Your task to perform on an android device: Open display settings Image 0: 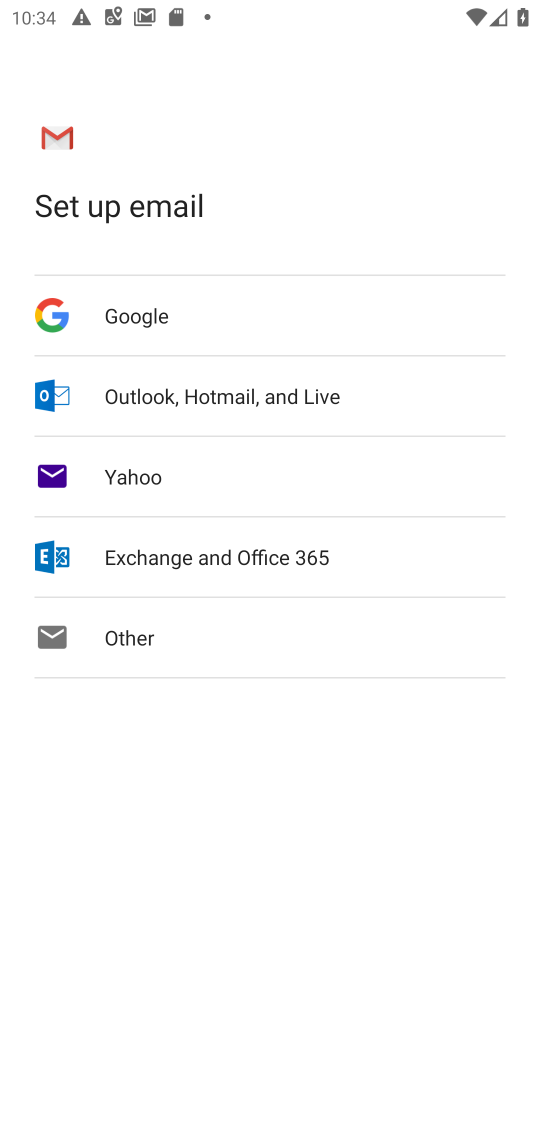
Step 0: press home button
Your task to perform on an android device: Open display settings Image 1: 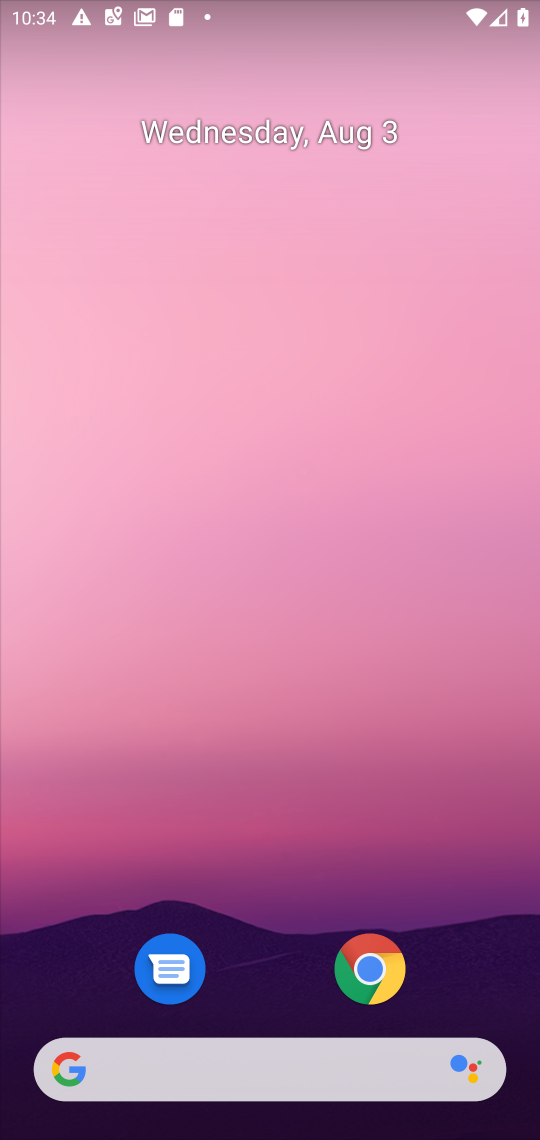
Step 1: drag from (285, 1015) to (315, 23)
Your task to perform on an android device: Open display settings Image 2: 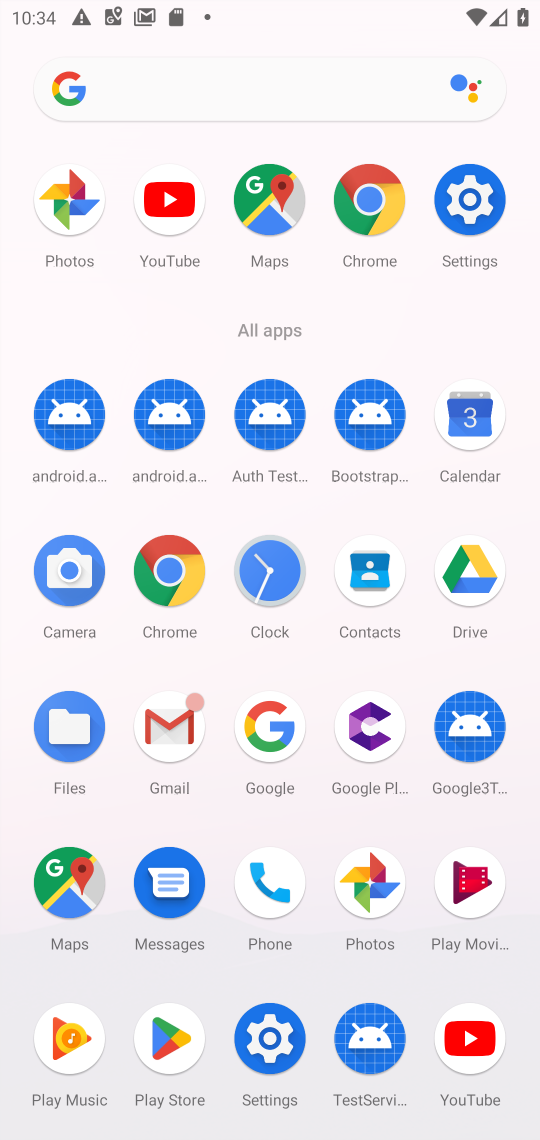
Step 2: click (453, 203)
Your task to perform on an android device: Open display settings Image 3: 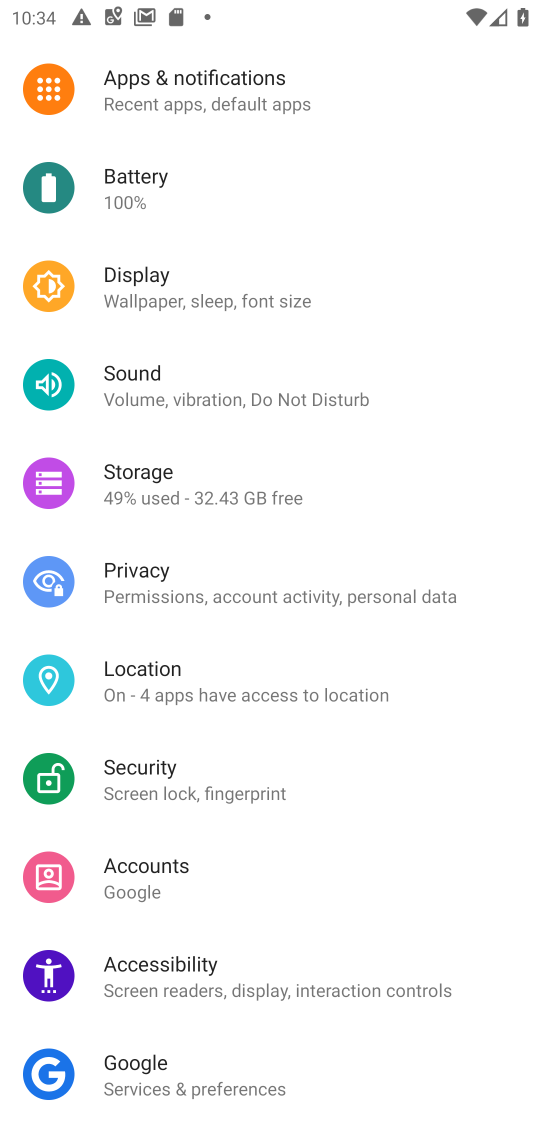
Step 3: click (129, 291)
Your task to perform on an android device: Open display settings Image 4: 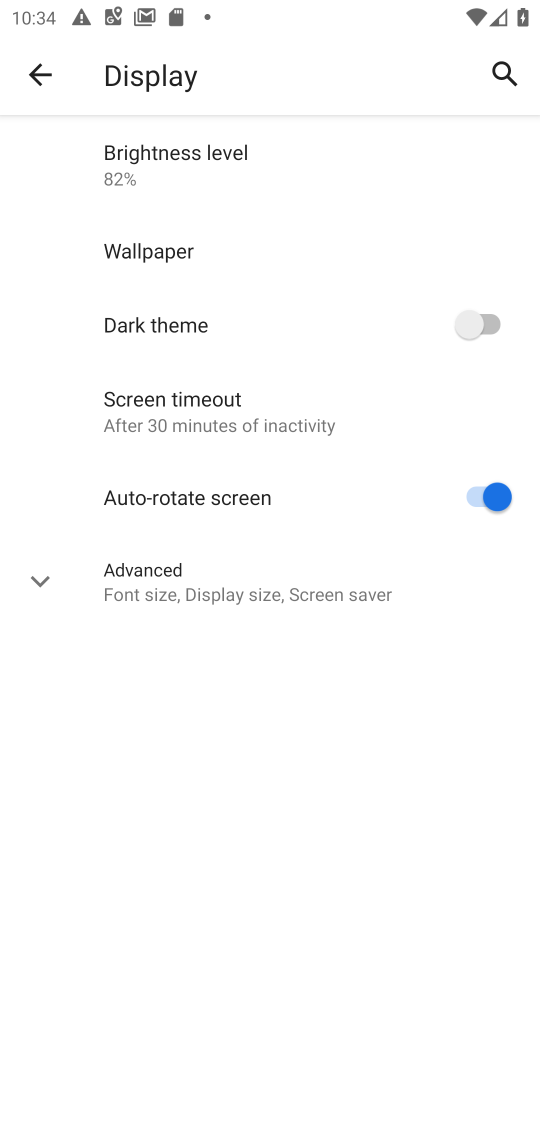
Step 4: click (171, 598)
Your task to perform on an android device: Open display settings Image 5: 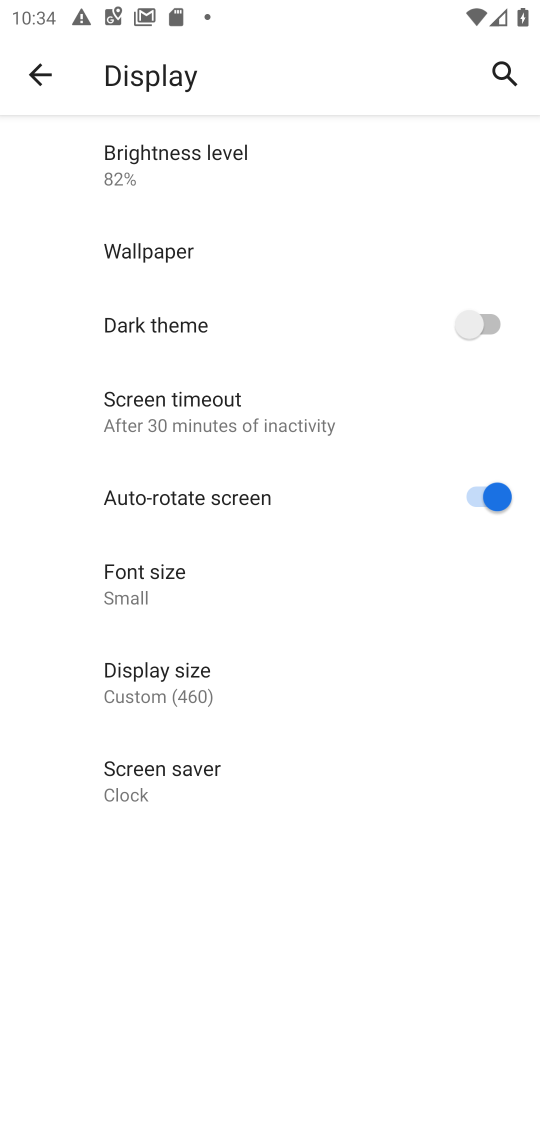
Step 5: task complete